Your task to perform on an android device: toggle notifications settings in the gmail app Image 0: 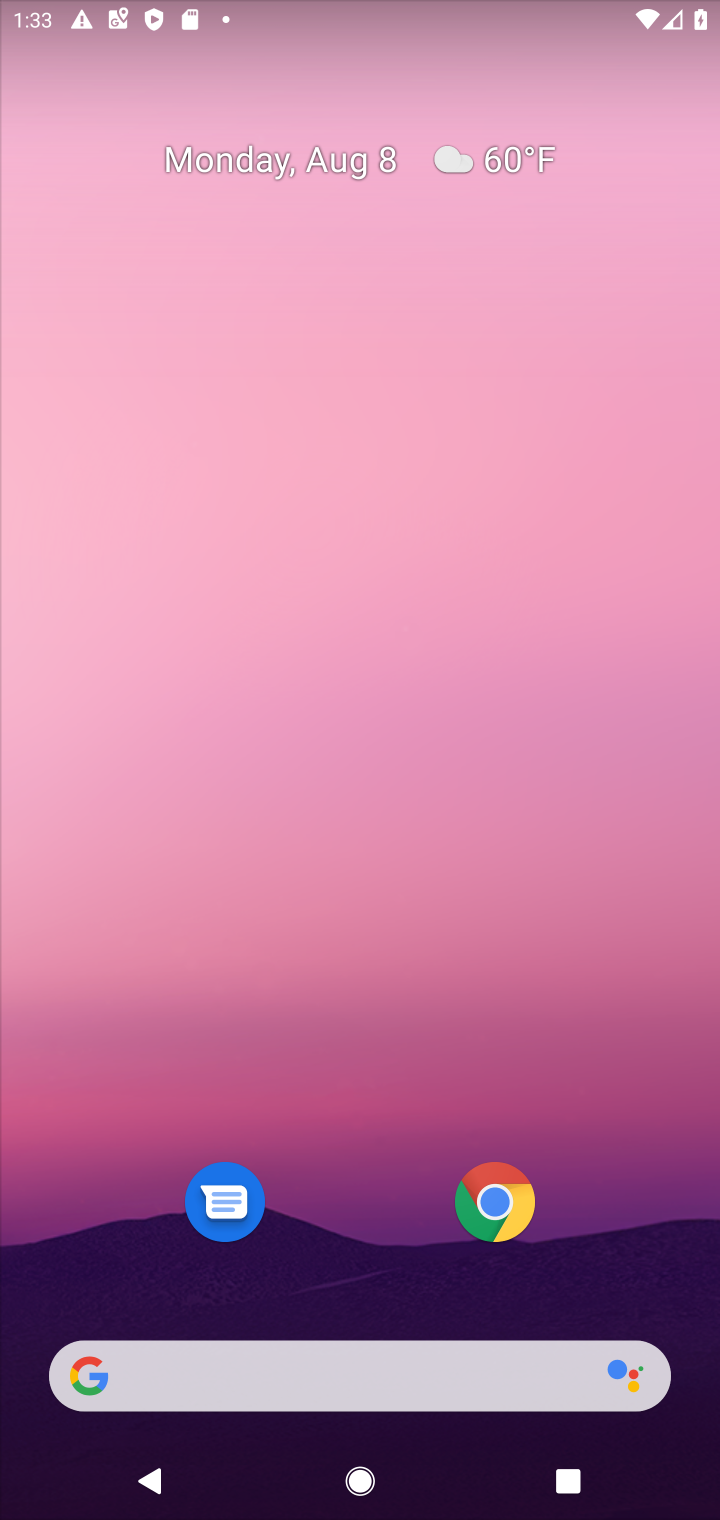
Step 0: press home button
Your task to perform on an android device: toggle notifications settings in the gmail app Image 1: 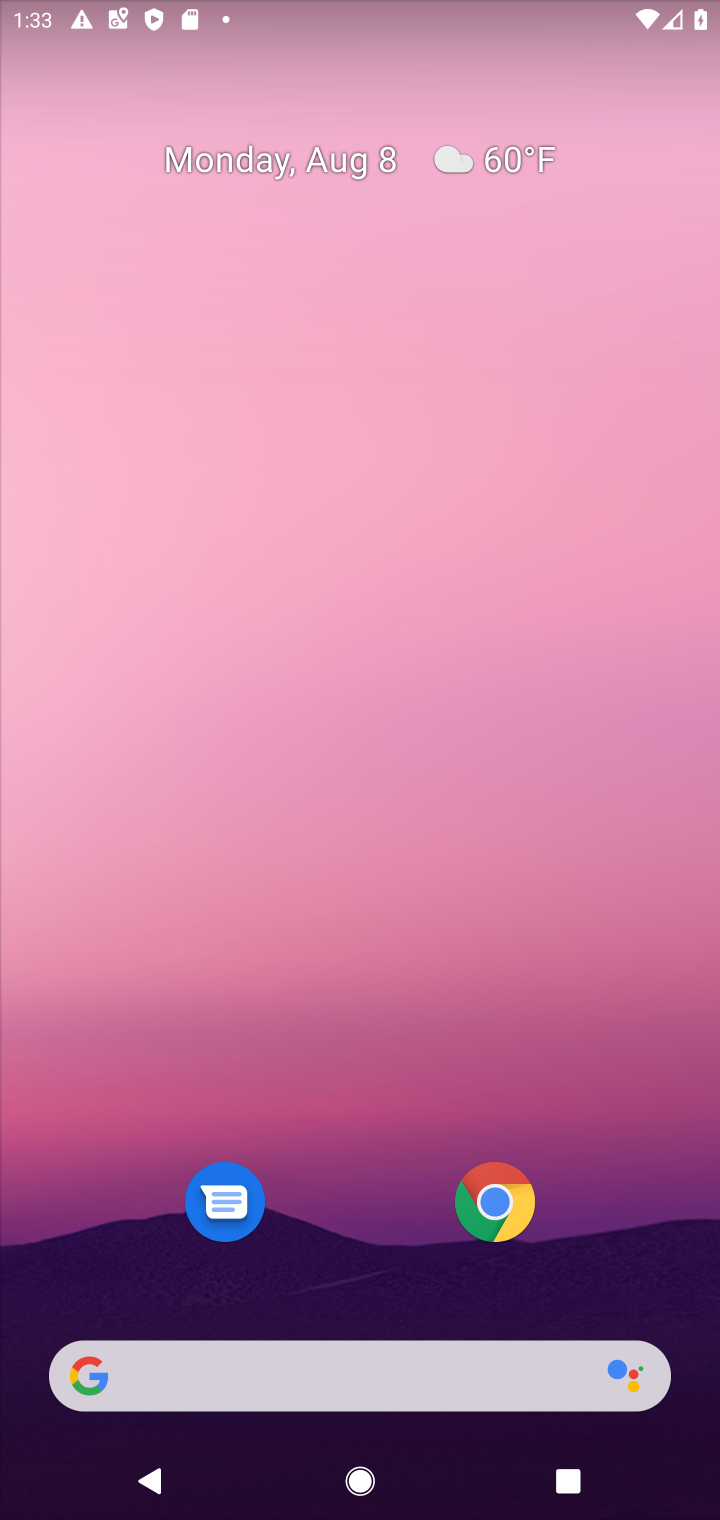
Step 1: drag from (597, 1259) to (641, 354)
Your task to perform on an android device: toggle notifications settings in the gmail app Image 2: 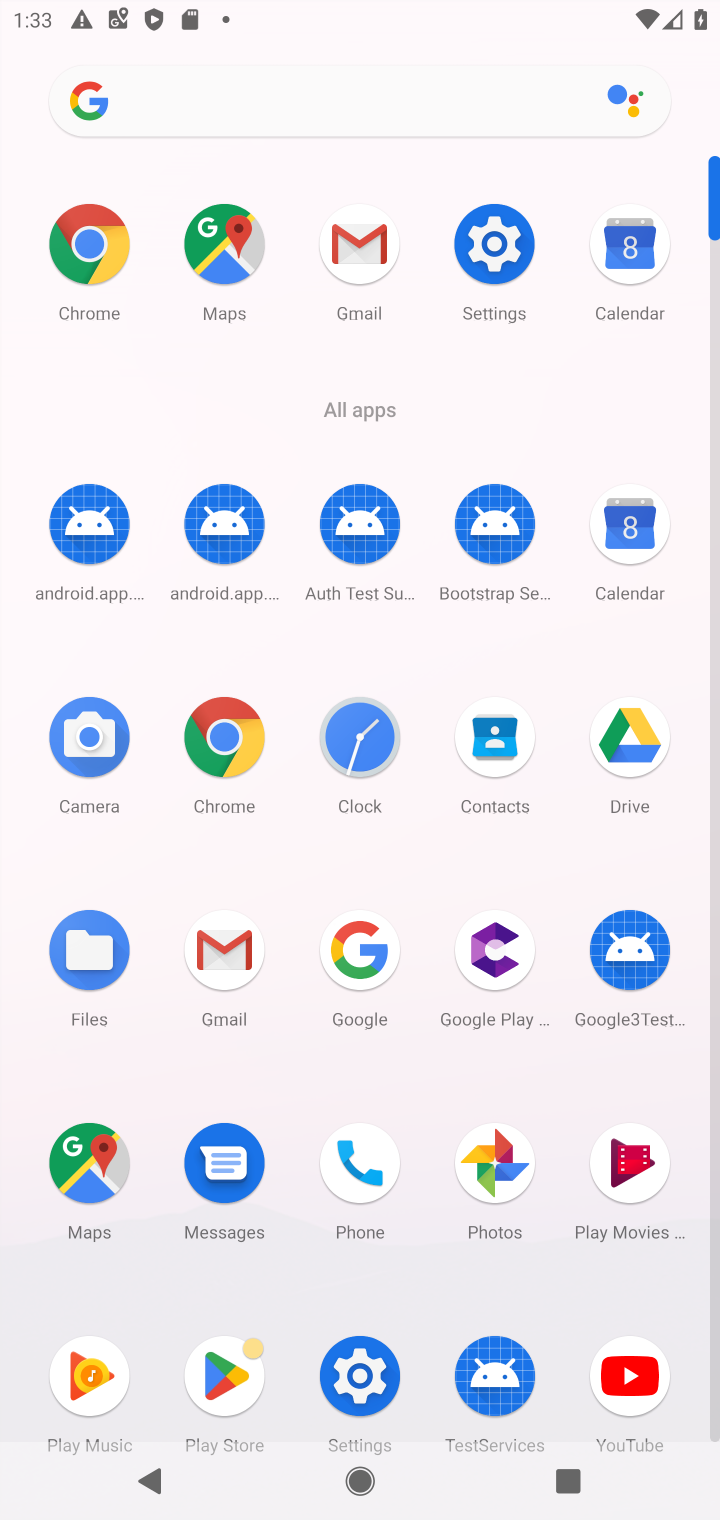
Step 2: click (222, 955)
Your task to perform on an android device: toggle notifications settings in the gmail app Image 3: 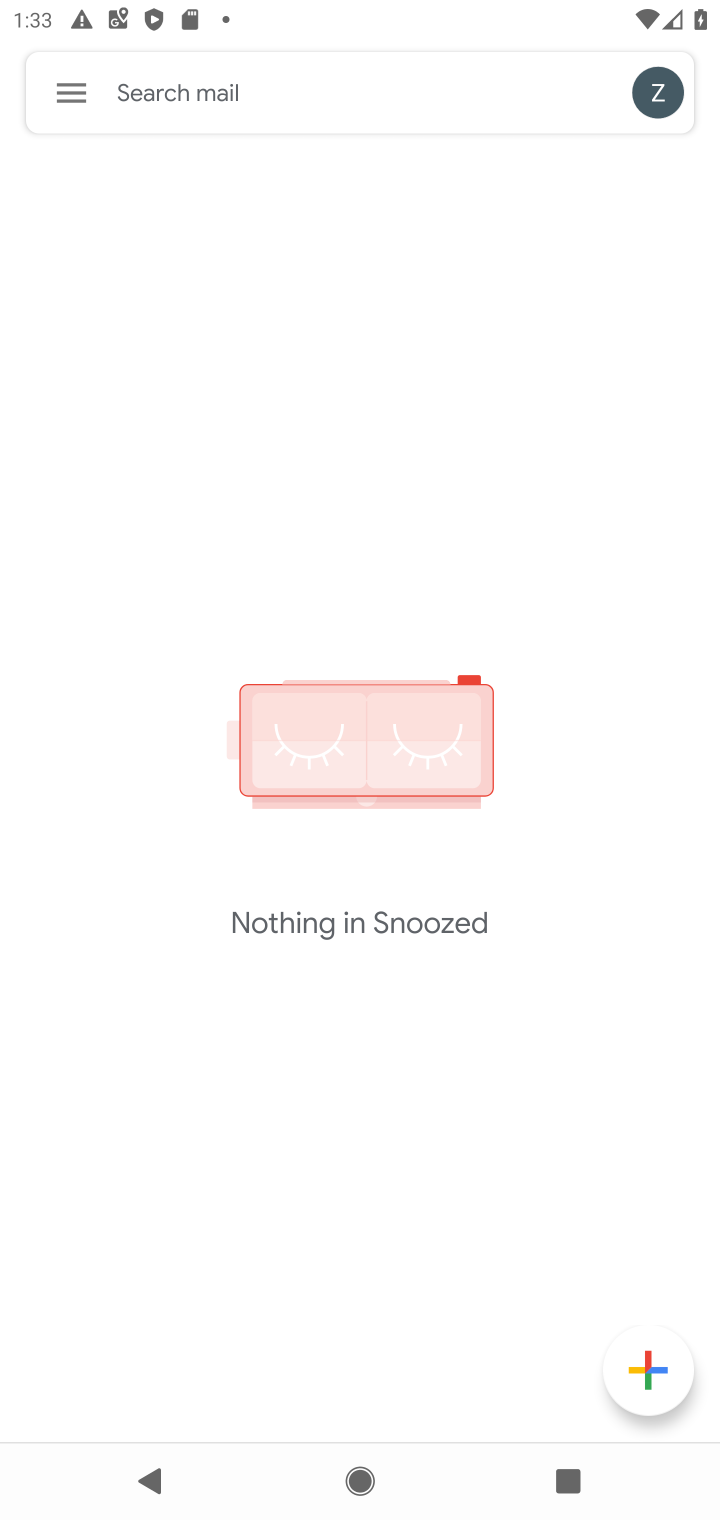
Step 3: click (64, 90)
Your task to perform on an android device: toggle notifications settings in the gmail app Image 4: 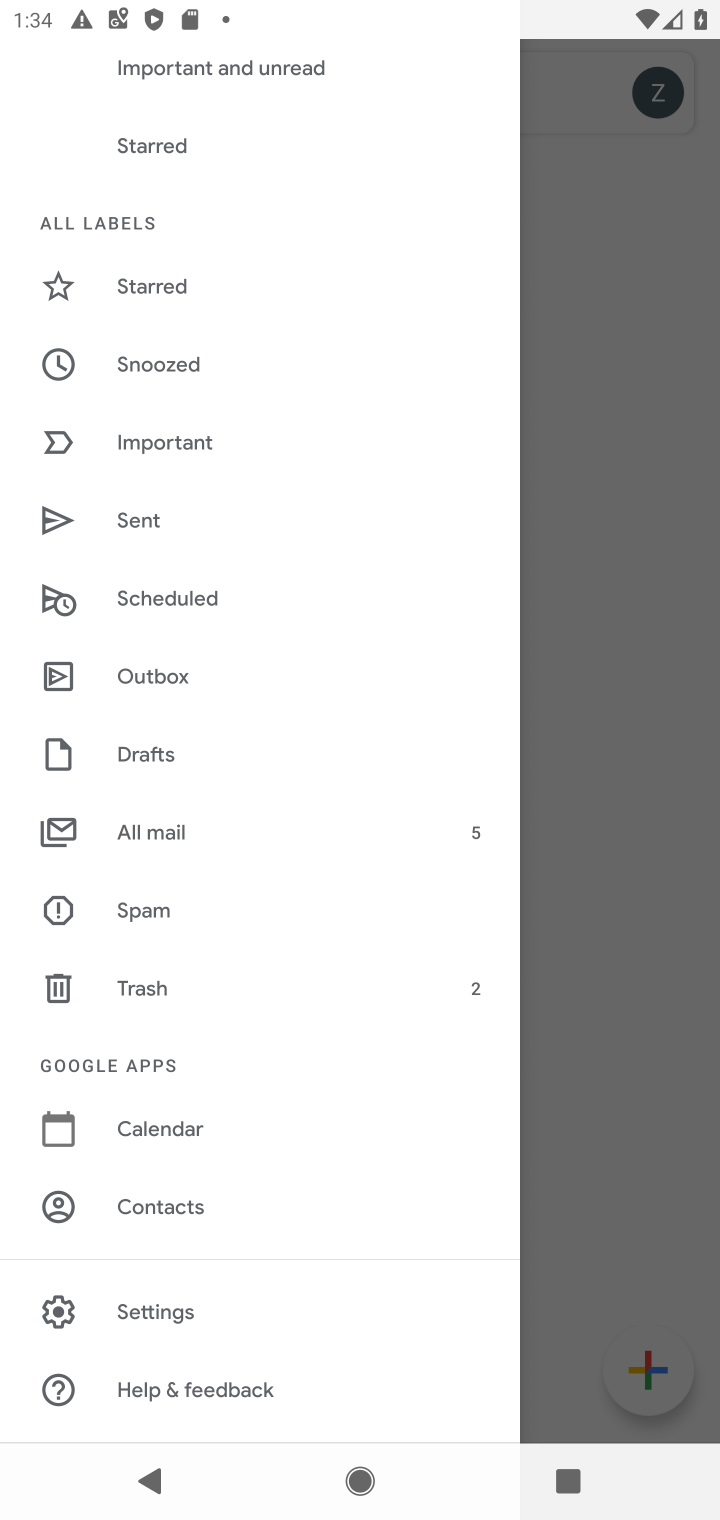
Step 4: click (193, 1298)
Your task to perform on an android device: toggle notifications settings in the gmail app Image 5: 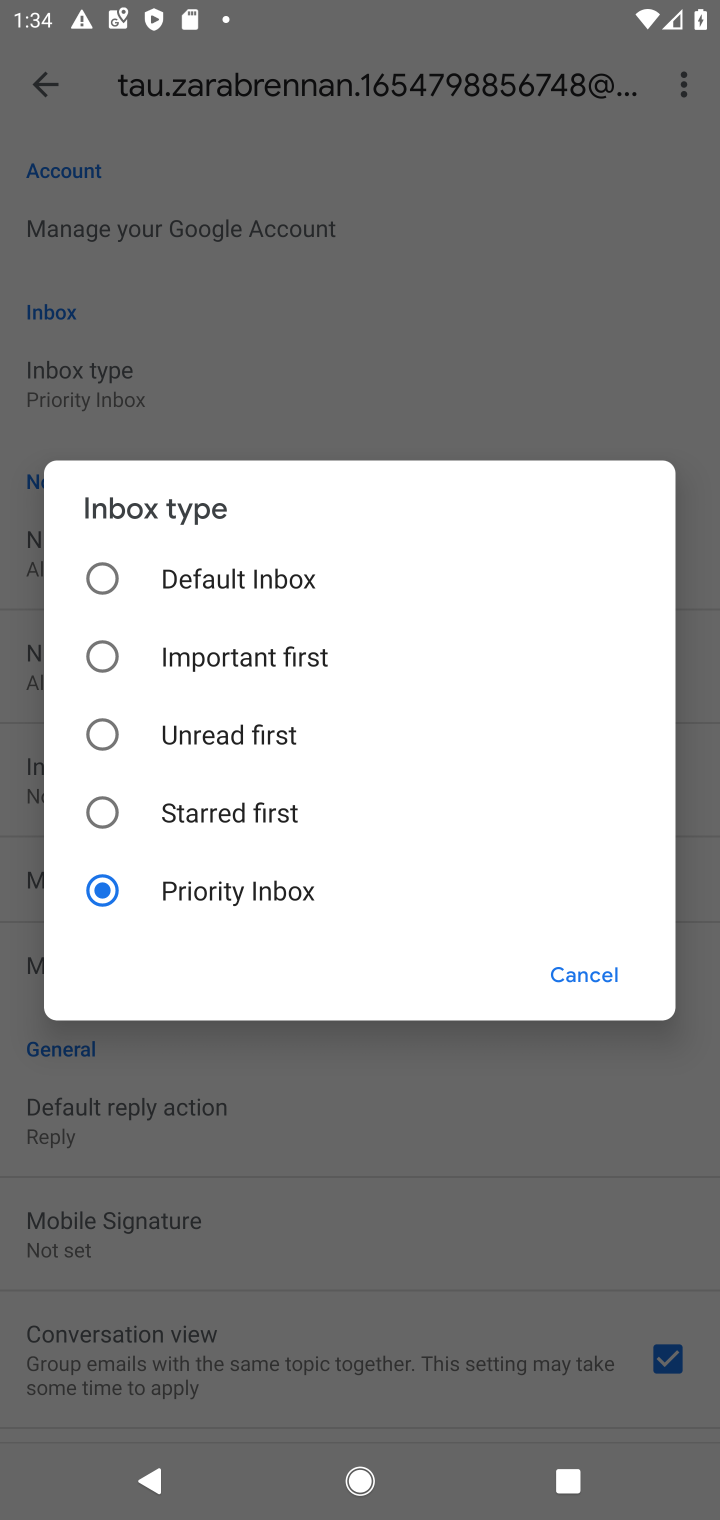
Step 5: click (572, 958)
Your task to perform on an android device: toggle notifications settings in the gmail app Image 6: 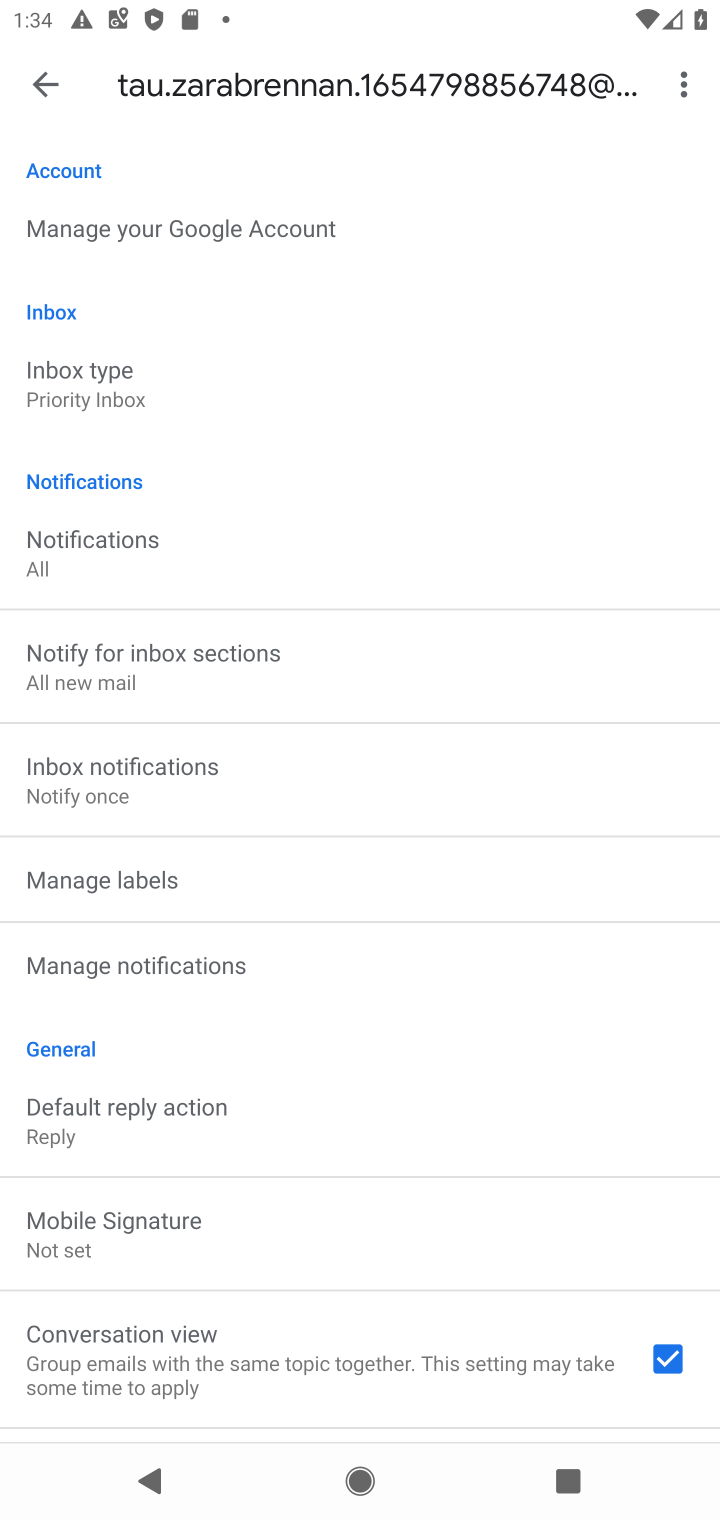
Step 6: click (272, 980)
Your task to perform on an android device: toggle notifications settings in the gmail app Image 7: 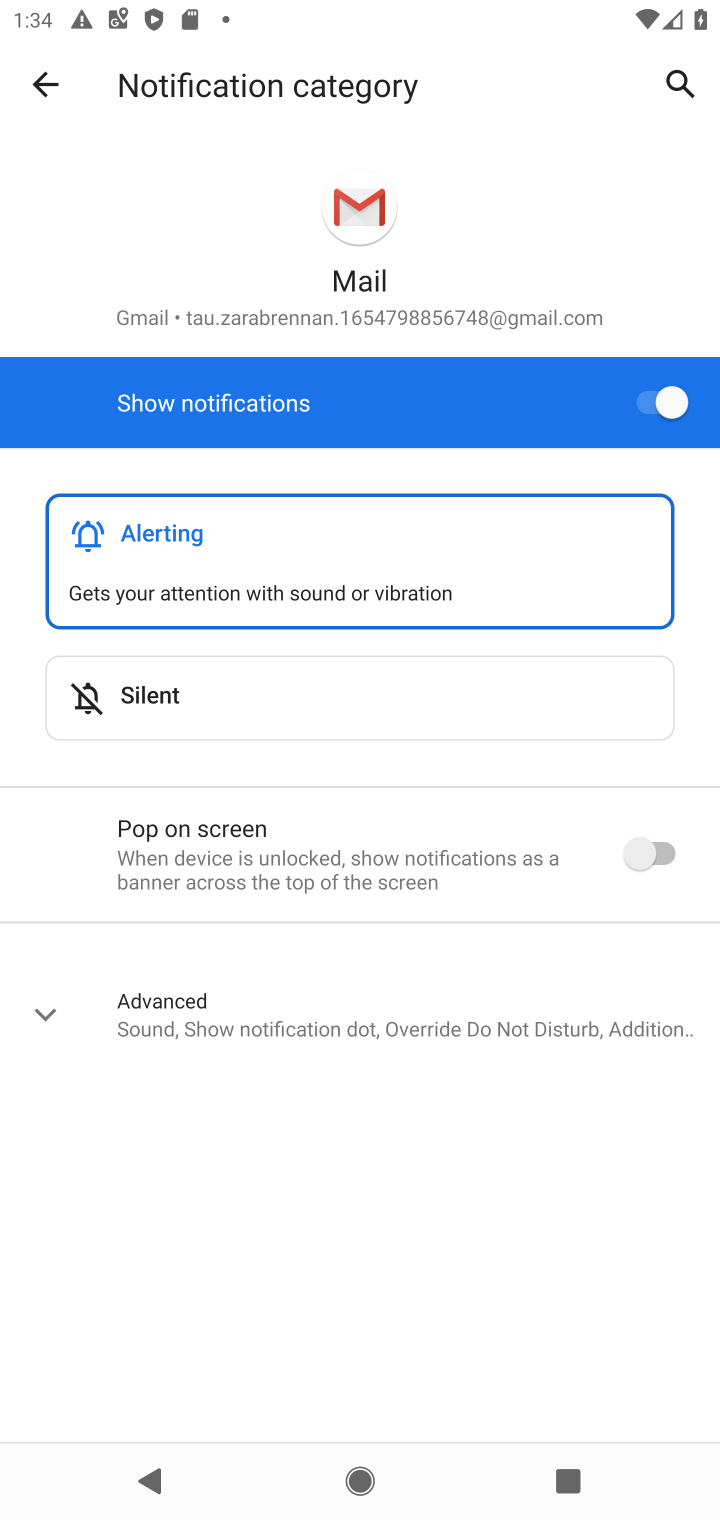
Step 7: click (663, 412)
Your task to perform on an android device: toggle notifications settings in the gmail app Image 8: 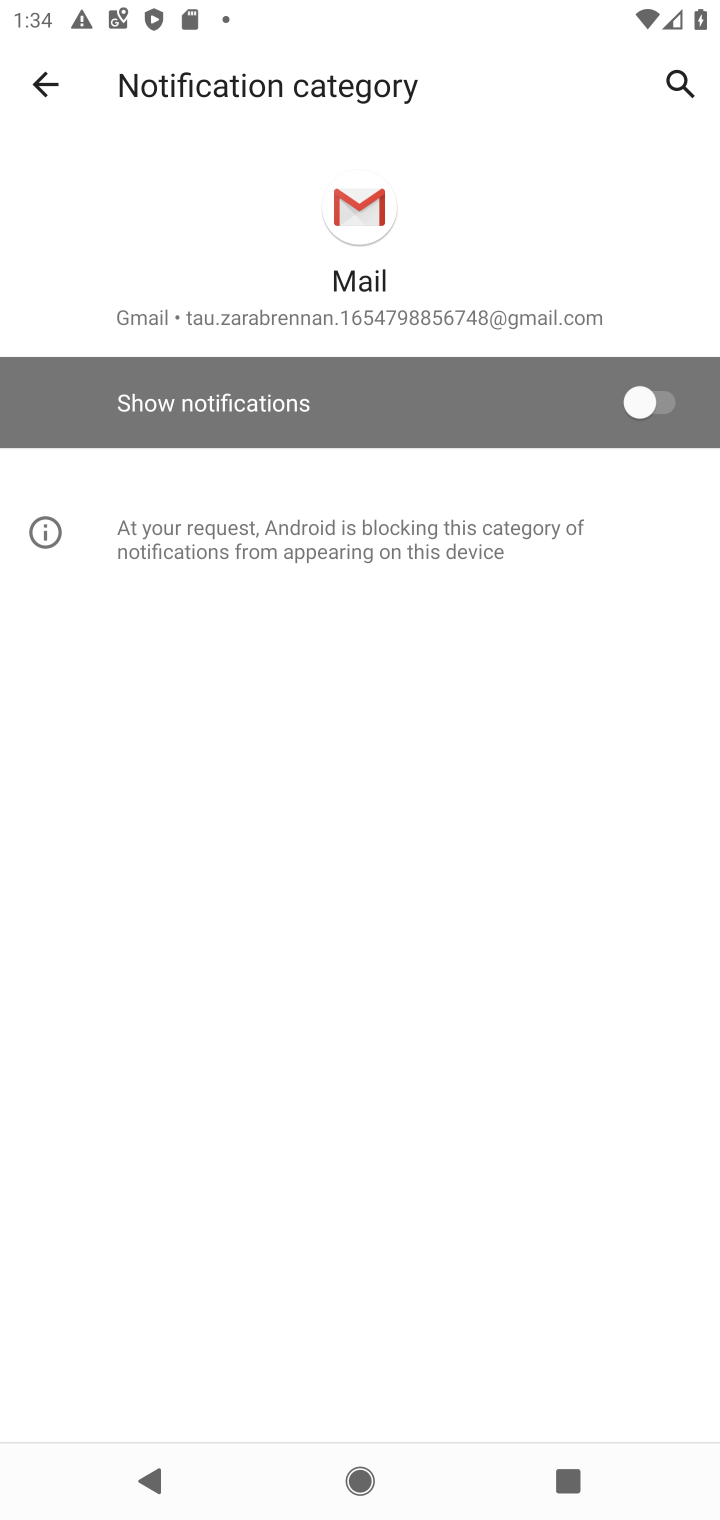
Step 8: task complete